Your task to perform on an android device: allow notifications from all sites in the chrome app Image 0: 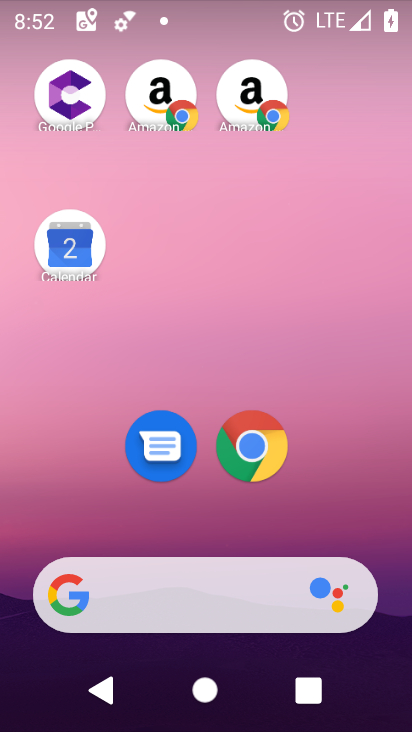
Step 0: drag from (353, 393) to (360, 87)
Your task to perform on an android device: allow notifications from all sites in the chrome app Image 1: 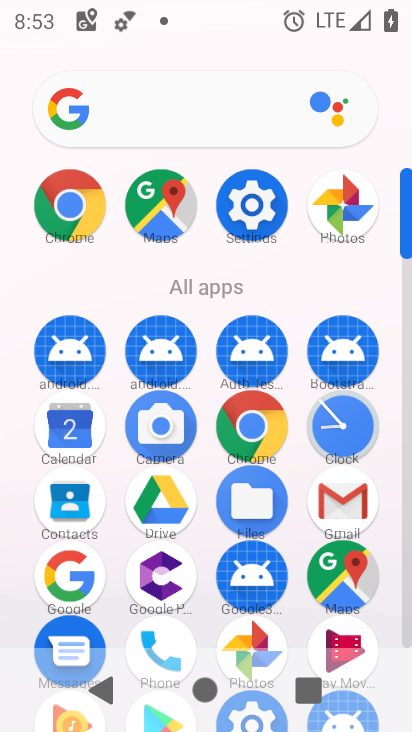
Step 1: click (81, 218)
Your task to perform on an android device: allow notifications from all sites in the chrome app Image 2: 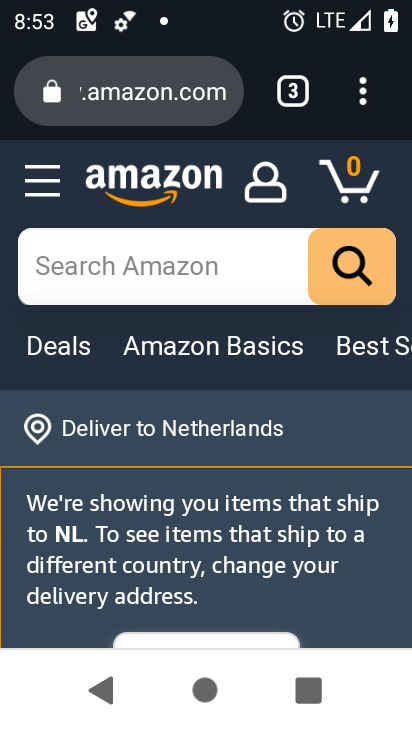
Step 2: click (365, 108)
Your task to perform on an android device: allow notifications from all sites in the chrome app Image 3: 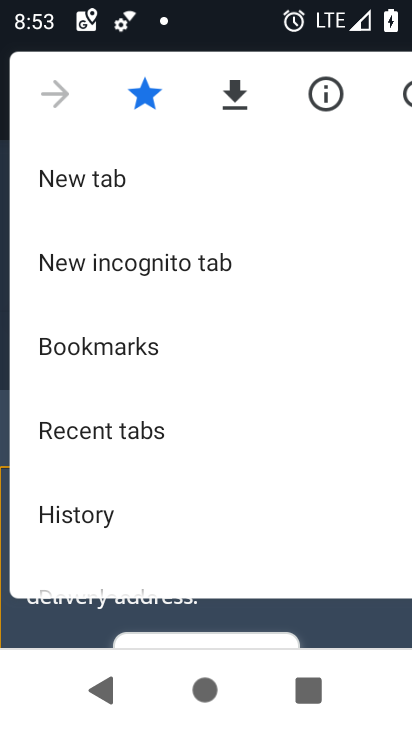
Step 3: click (285, 167)
Your task to perform on an android device: allow notifications from all sites in the chrome app Image 4: 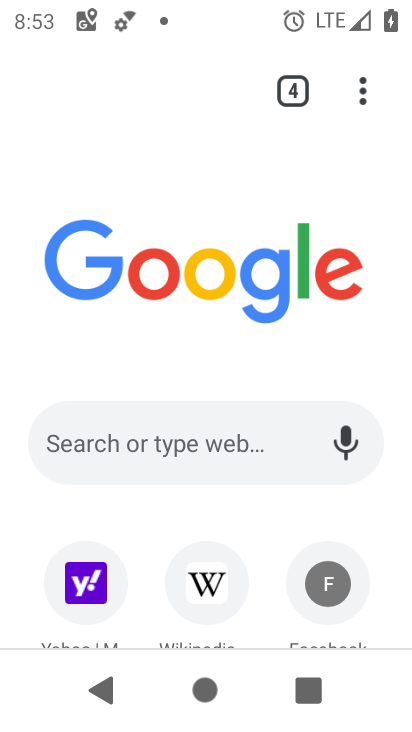
Step 4: click (359, 84)
Your task to perform on an android device: allow notifications from all sites in the chrome app Image 5: 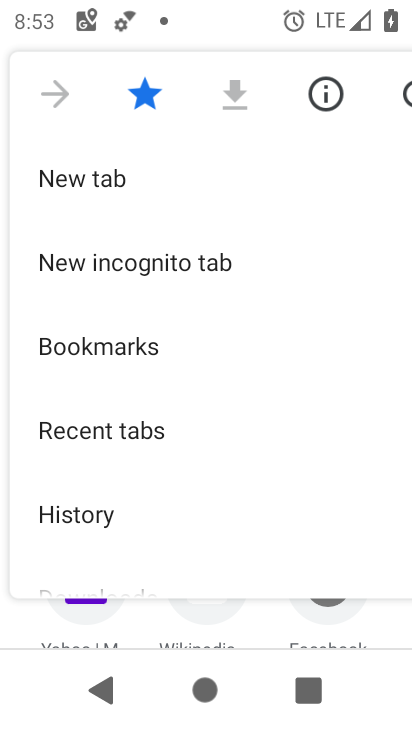
Step 5: drag from (222, 476) to (284, 164)
Your task to perform on an android device: allow notifications from all sites in the chrome app Image 6: 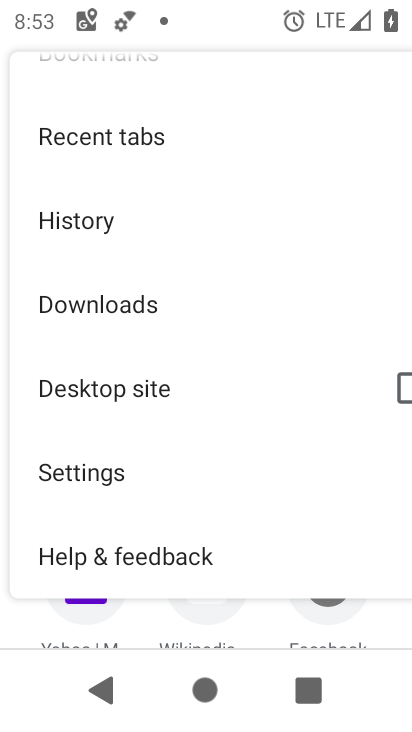
Step 6: click (153, 477)
Your task to perform on an android device: allow notifications from all sites in the chrome app Image 7: 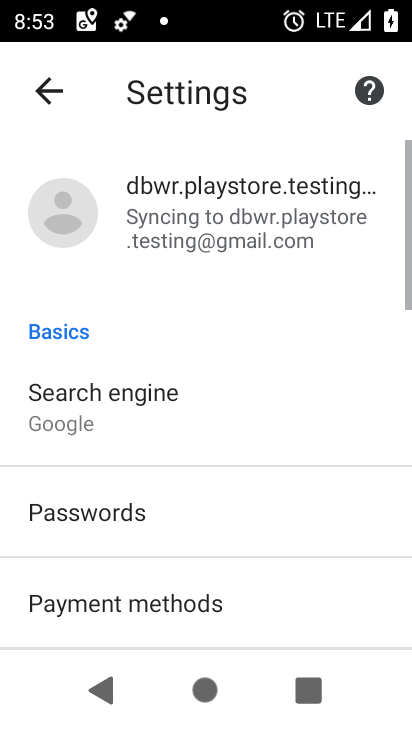
Step 7: drag from (153, 476) to (213, 173)
Your task to perform on an android device: allow notifications from all sites in the chrome app Image 8: 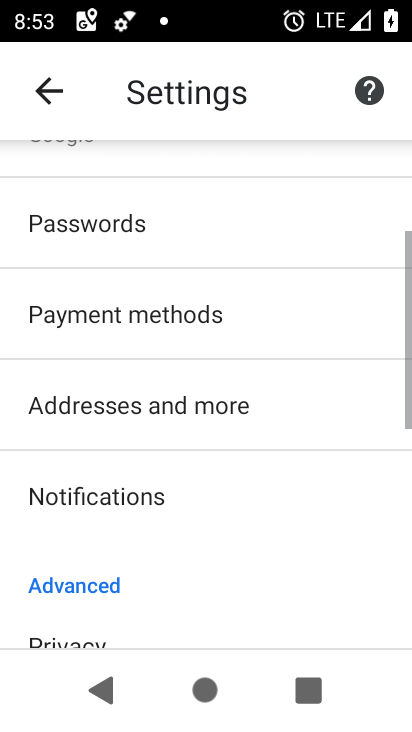
Step 8: drag from (189, 581) to (281, 204)
Your task to perform on an android device: allow notifications from all sites in the chrome app Image 9: 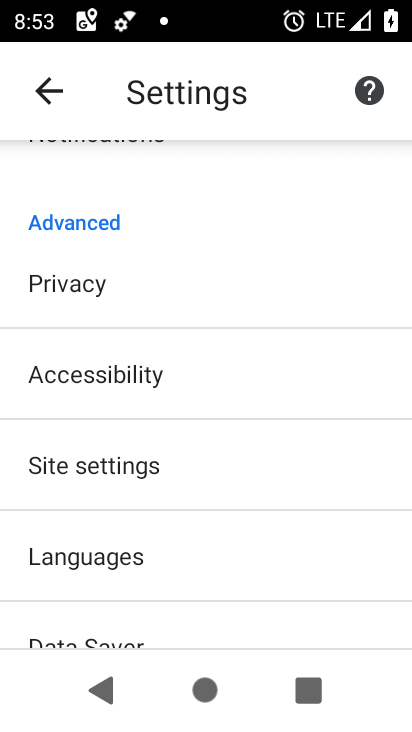
Step 9: click (258, 468)
Your task to perform on an android device: allow notifications from all sites in the chrome app Image 10: 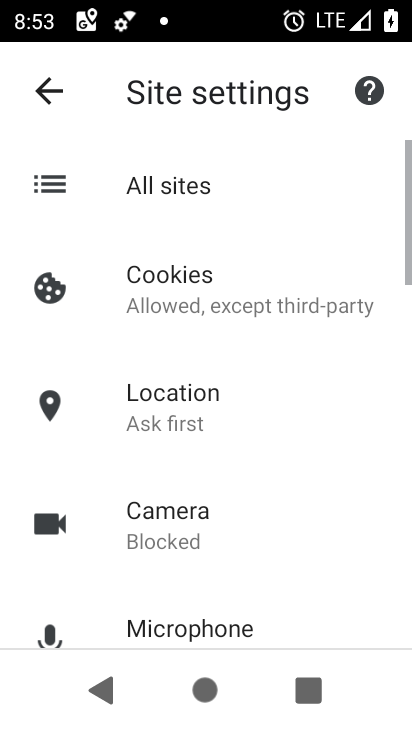
Step 10: drag from (258, 467) to (294, 151)
Your task to perform on an android device: allow notifications from all sites in the chrome app Image 11: 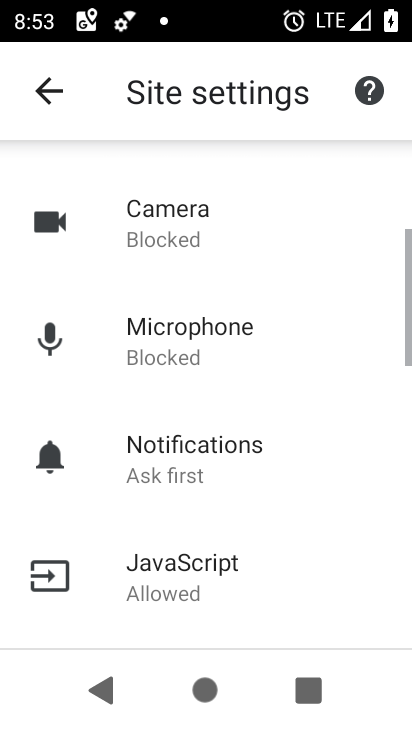
Step 11: click (253, 459)
Your task to perform on an android device: allow notifications from all sites in the chrome app Image 12: 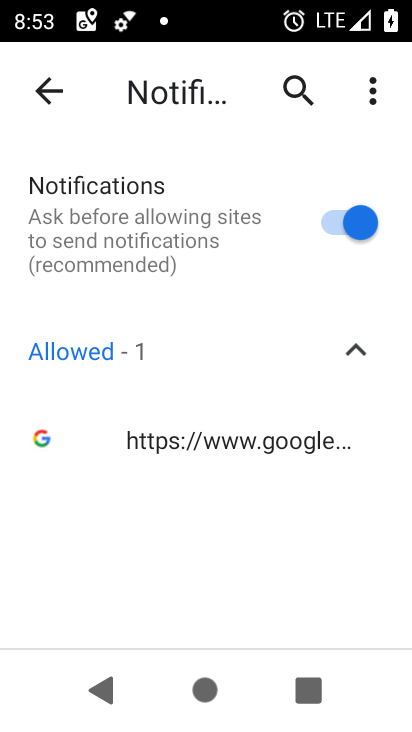
Step 12: task complete